Your task to perform on an android device: Go to accessibility settings Image 0: 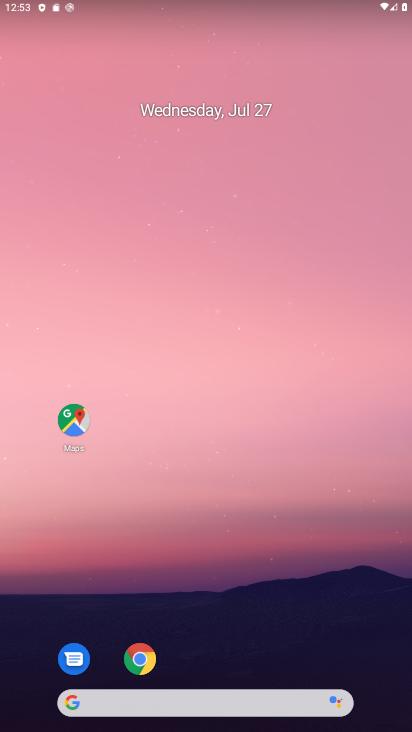
Step 0: drag from (312, 592) to (240, 0)
Your task to perform on an android device: Go to accessibility settings Image 1: 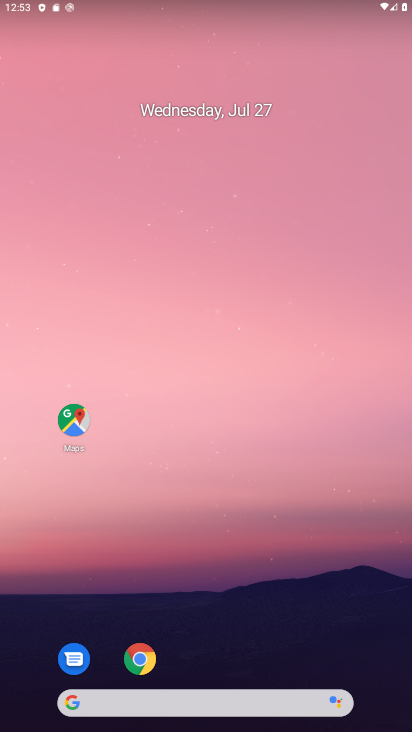
Step 1: drag from (279, 594) to (264, 17)
Your task to perform on an android device: Go to accessibility settings Image 2: 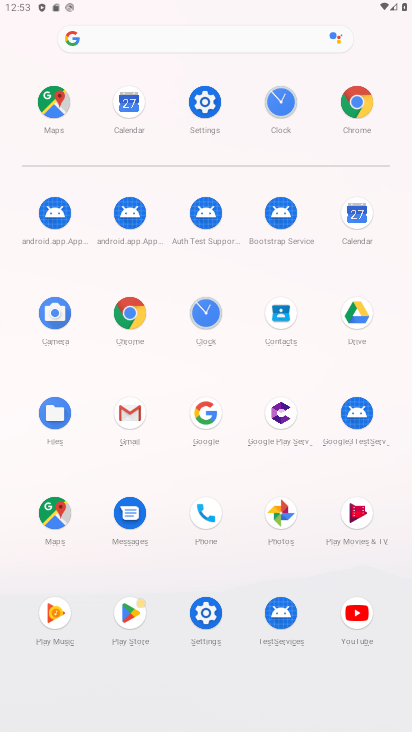
Step 2: click (216, 97)
Your task to perform on an android device: Go to accessibility settings Image 3: 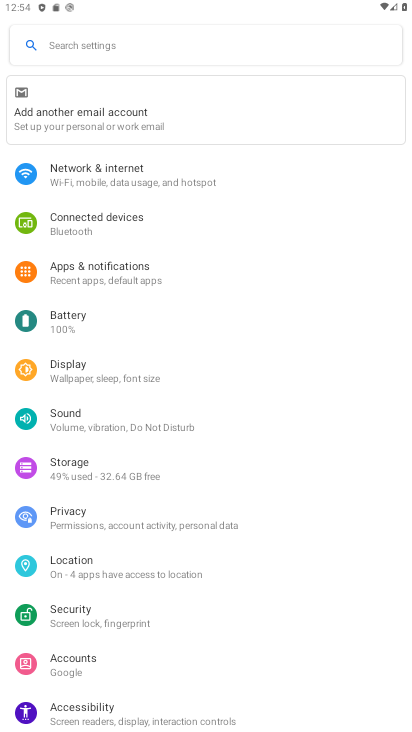
Step 3: drag from (198, 617) to (207, 181)
Your task to perform on an android device: Go to accessibility settings Image 4: 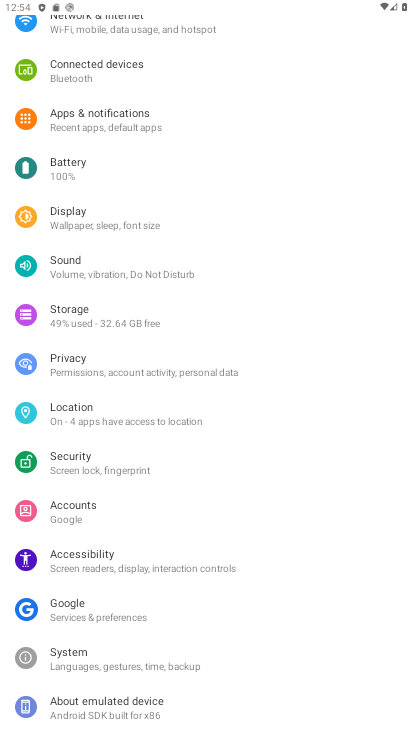
Step 4: click (172, 558)
Your task to perform on an android device: Go to accessibility settings Image 5: 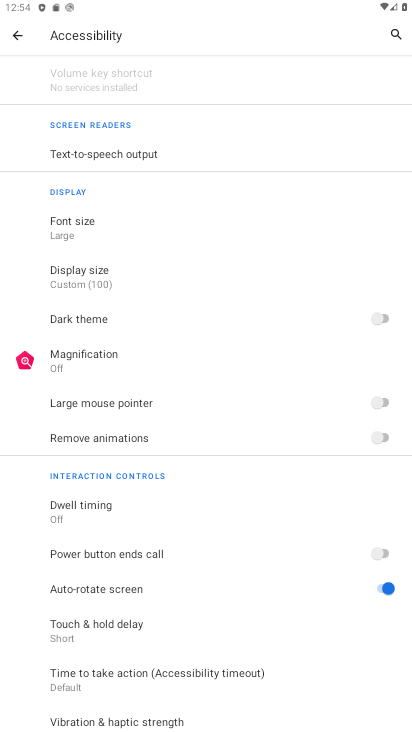
Step 5: task complete